Your task to perform on an android device: Go to Amazon Image 0: 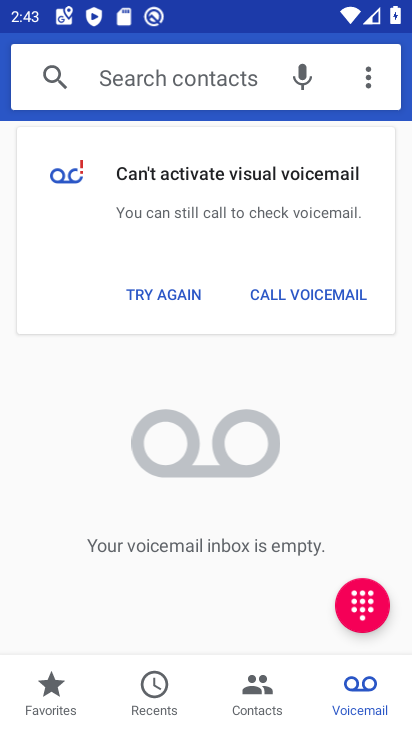
Step 0: press home button
Your task to perform on an android device: Go to Amazon Image 1: 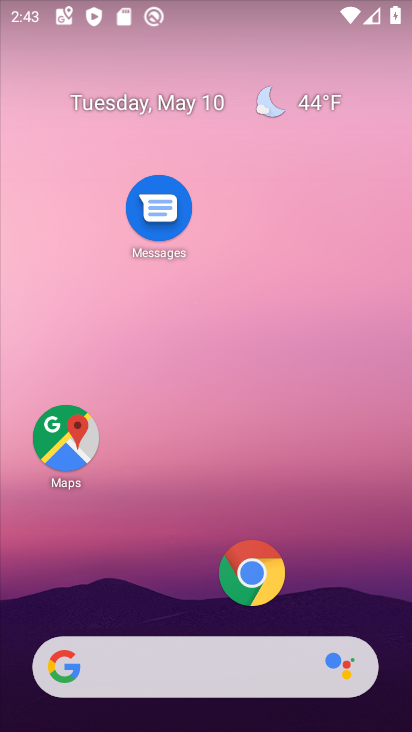
Step 1: click (265, 580)
Your task to perform on an android device: Go to Amazon Image 2: 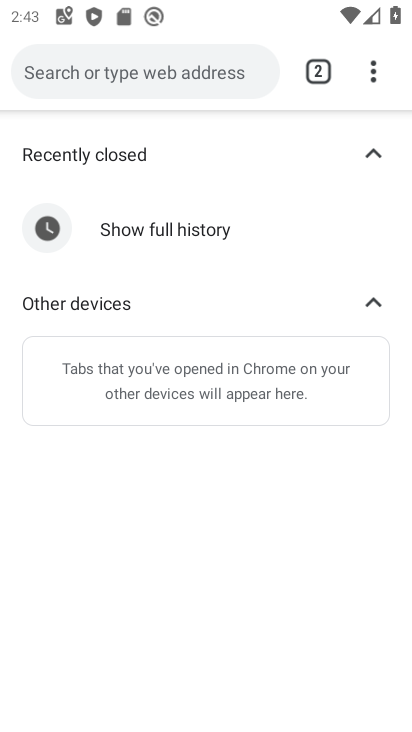
Step 2: click (312, 77)
Your task to perform on an android device: Go to Amazon Image 3: 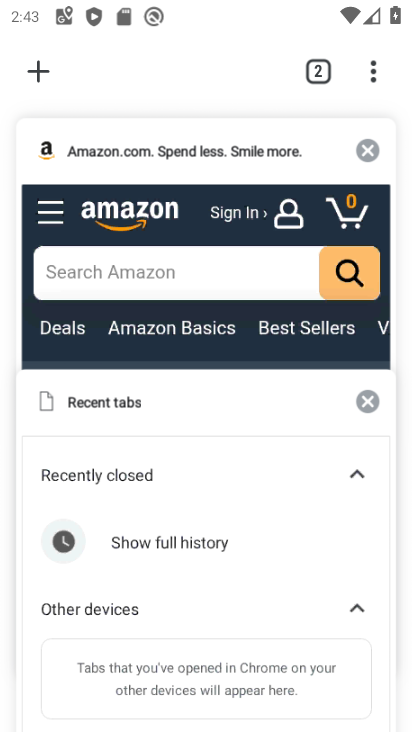
Step 3: click (60, 278)
Your task to perform on an android device: Go to Amazon Image 4: 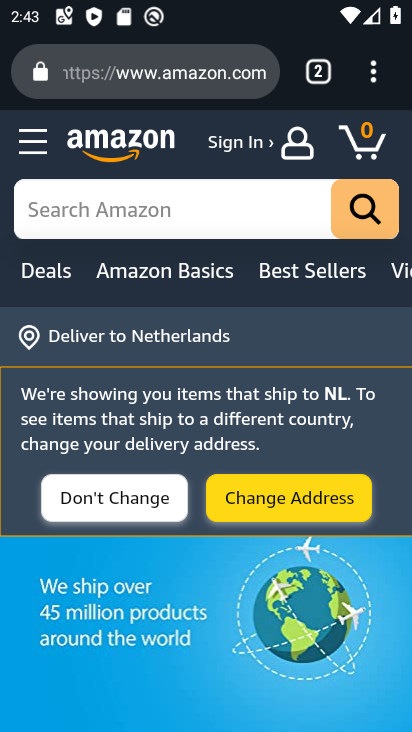
Step 4: task complete